Your task to perform on an android device: Clear the shopping cart on walmart. Add "amazon basics triple a" to the cart on walmart, then select checkout. Image 0: 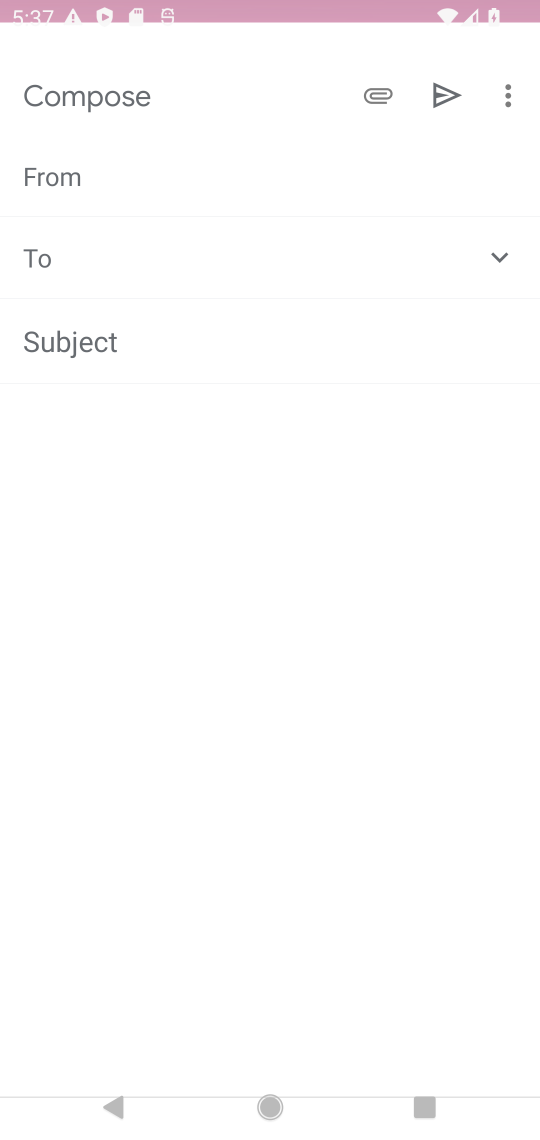
Step 0: press home button
Your task to perform on an android device: Clear the shopping cart on walmart. Add "amazon basics triple a" to the cart on walmart, then select checkout. Image 1: 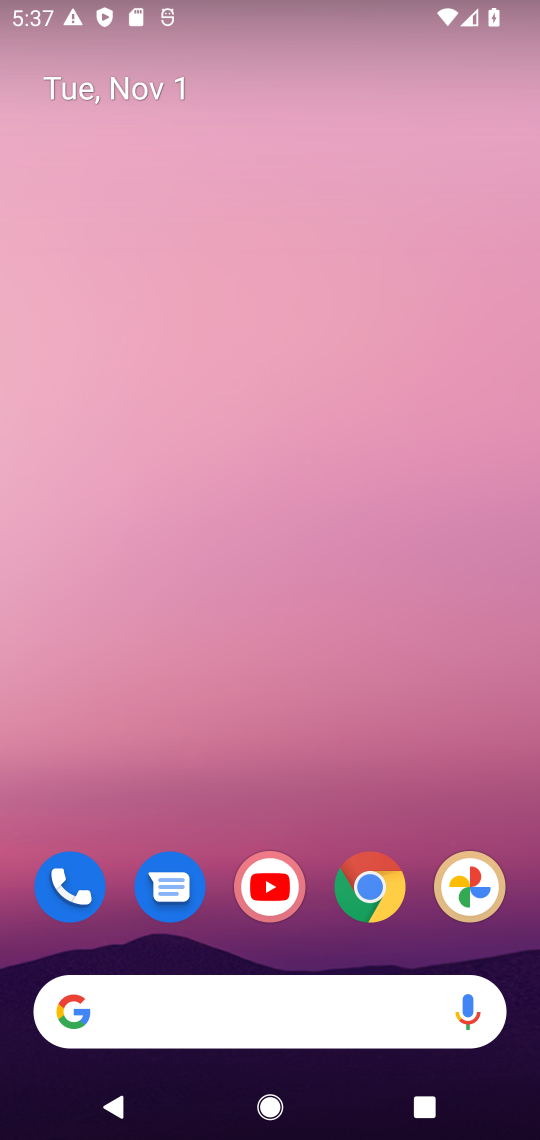
Step 1: drag from (313, 831) to (337, 63)
Your task to perform on an android device: Clear the shopping cart on walmart. Add "amazon basics triple a" to the cart on walmart, then select checkout. Image 2: 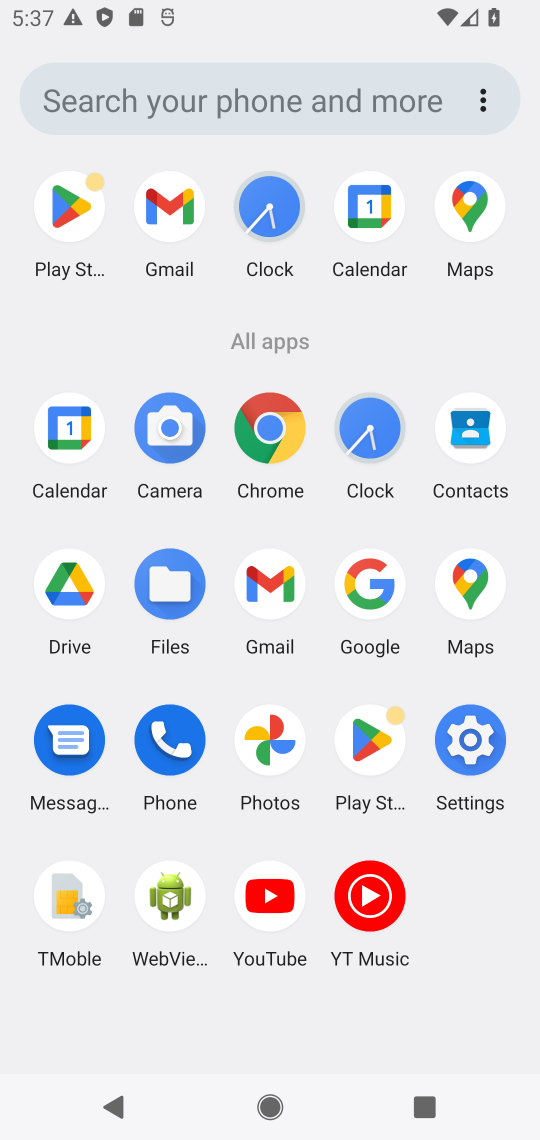
Step 2: click (266, 416)
Your task to perform on an android device: Clear the shopping cart on walmart. Add "amazon basics triple a" to the cart on walmart, then select checkout. Image 3: 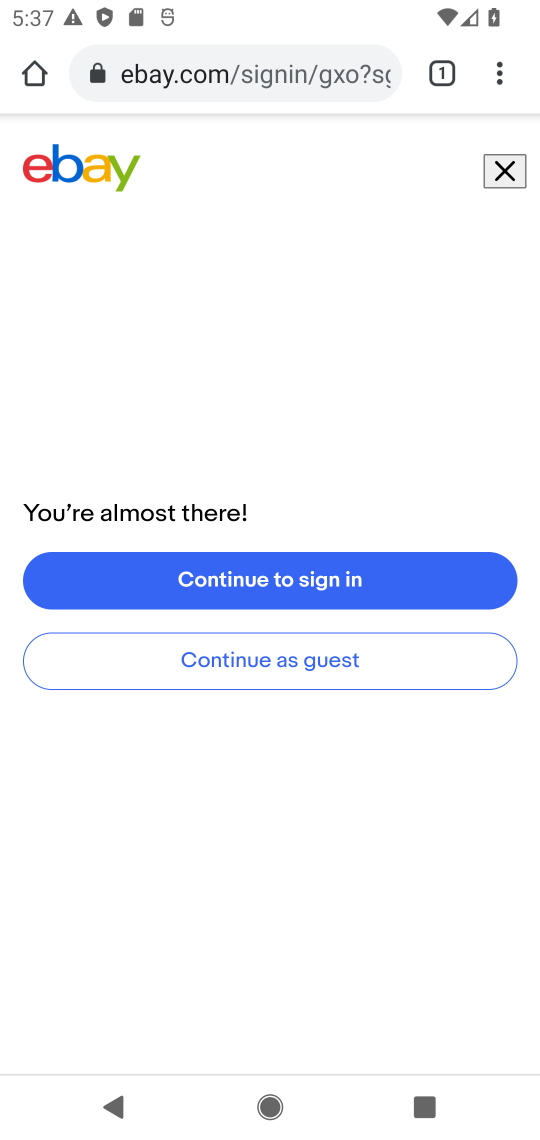
Step 3: click (263, 61)
Your task to perform on an android device: Clear the shopping cart on walmart. Add "amazon basics triple a" to the cart on walmart, then select checkout. Image 4: 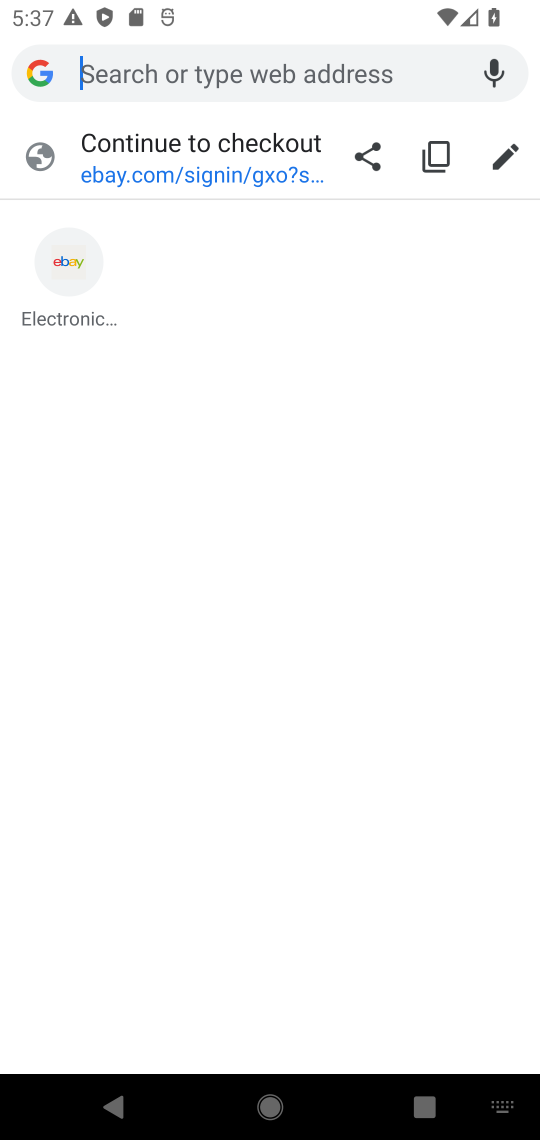
Step 4: type "walmart"
Your task to perform on an android device: Clear the shopping cart on walmart. Add "amazon basics triple a" to the cart on walmart, then select checkout. Image 5: 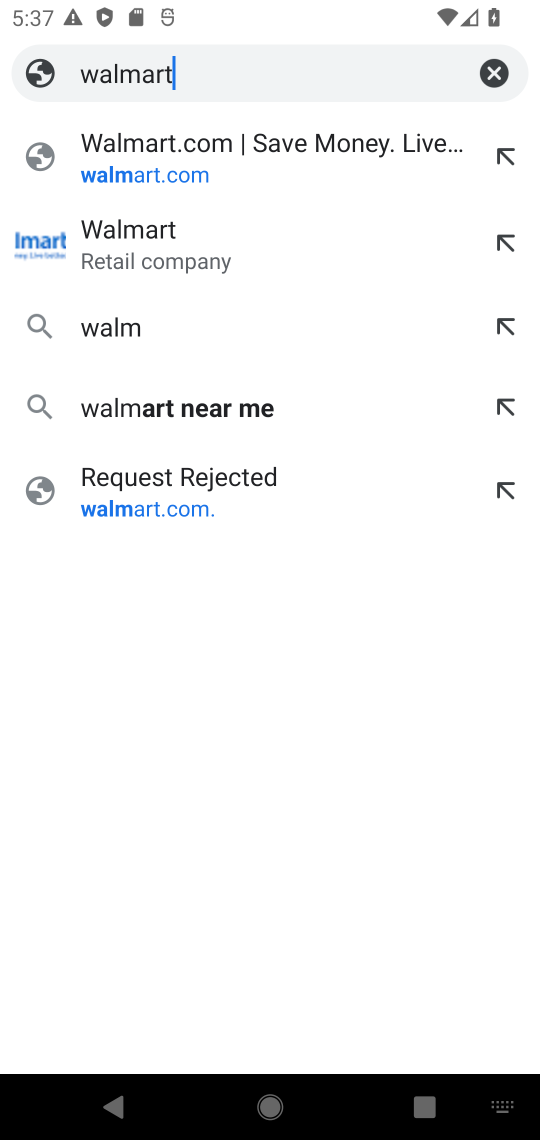
Step 5: type ""
Your task to perform on an android device: Clear the shopping cart on walmart. Add "amazon basics triple a" to the cart on walmart, then select checkout. Image 6: 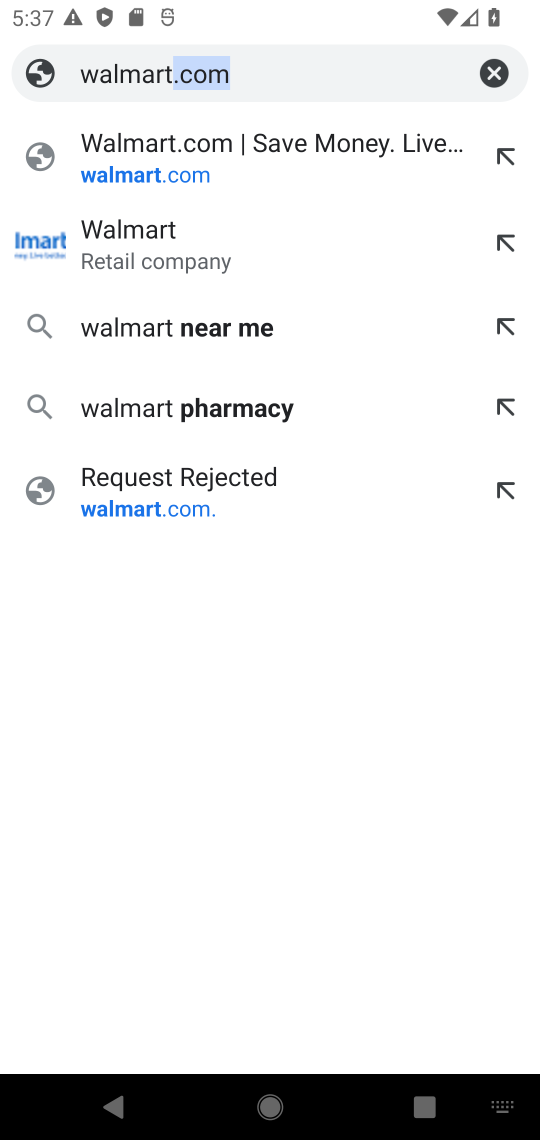
Step 6: click (228, 161)
Your task to perform on an android device: Clear the shopping cart on walmart. Add "amazon basics triple a" to the cart on walmart, then select checkout. Image 7: 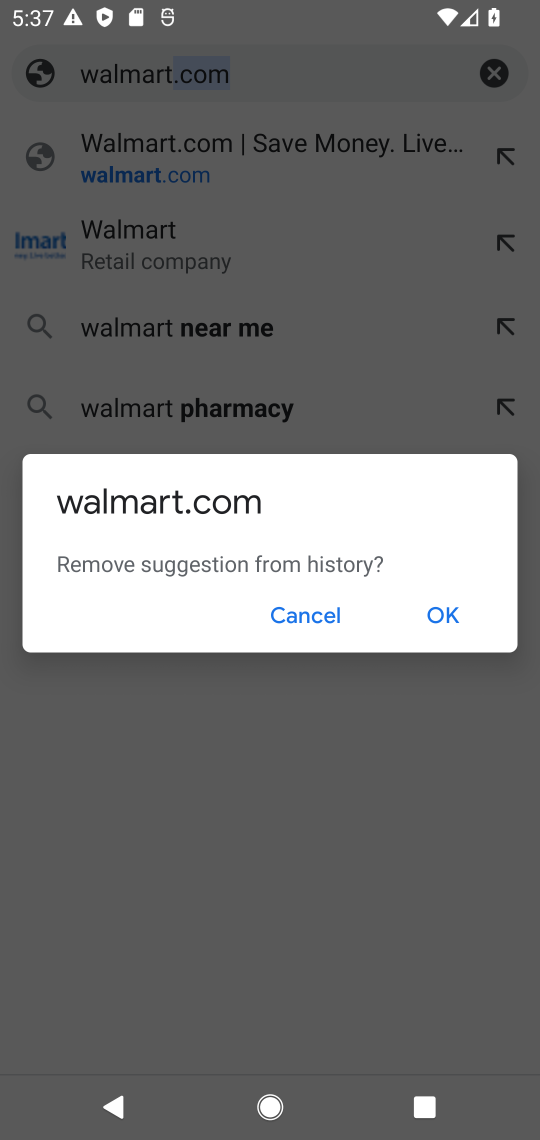
Step 7: click (305, 611)
Your task to perform on an android device: Clear the shopping cart on walmart. Add "amazon basics triple a" to the cart on walmart, then select checkout. Image 8: 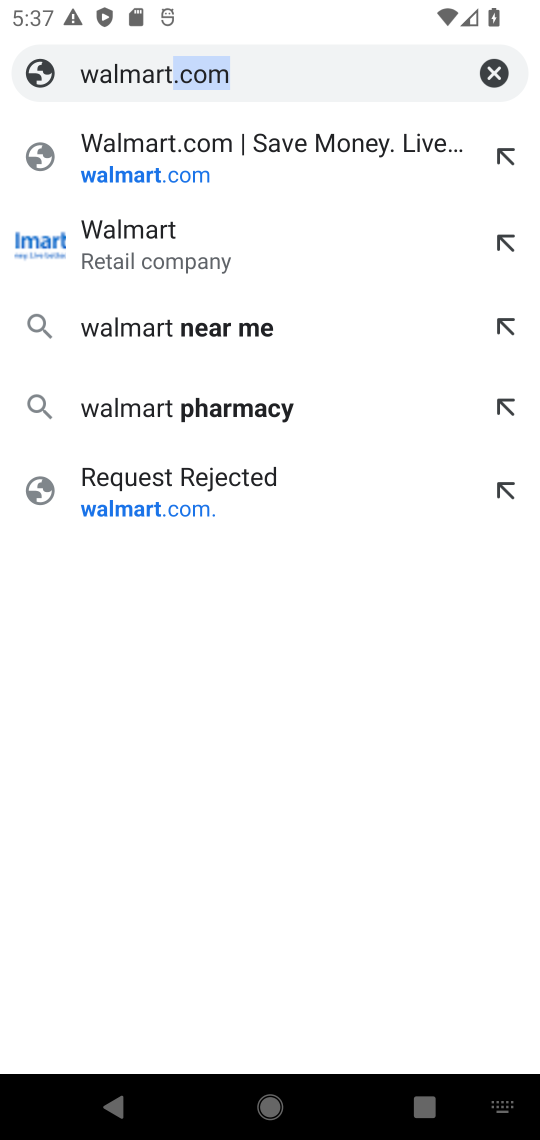
Step 8: click (137, 155)
Your task to perform on an android device: Clear the shopping cart on walmart. Add "amazon basics triple a" to the cart on walmart, then select checkout. Image 9: 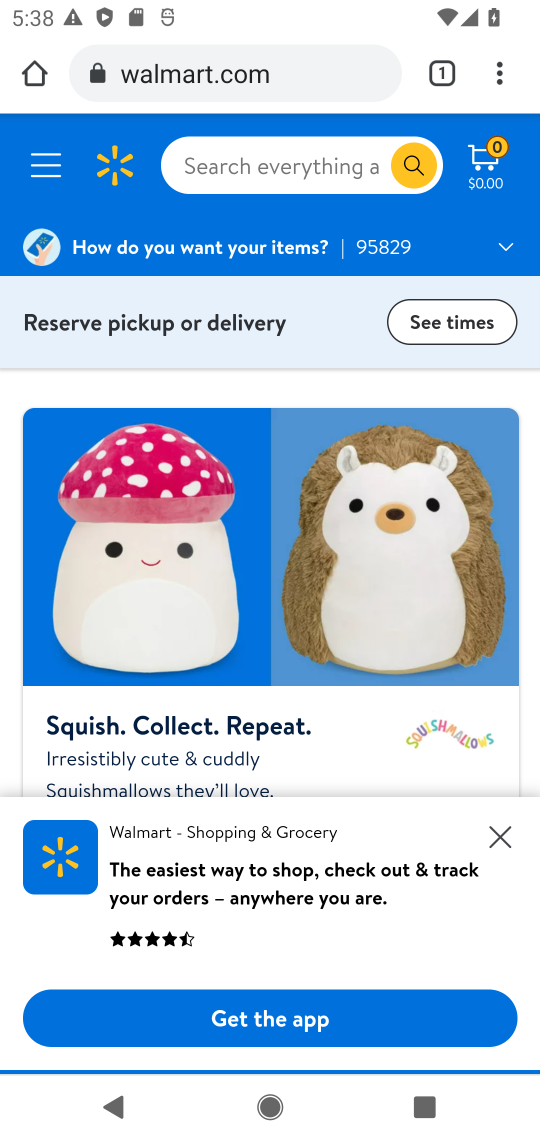
Step 9: click (237, 154)
Your task to perform on an android device: Clear the shopping cart on walmart. Add "amazon basics triple a" to the cart on walmart, then select checkout. Image 10: 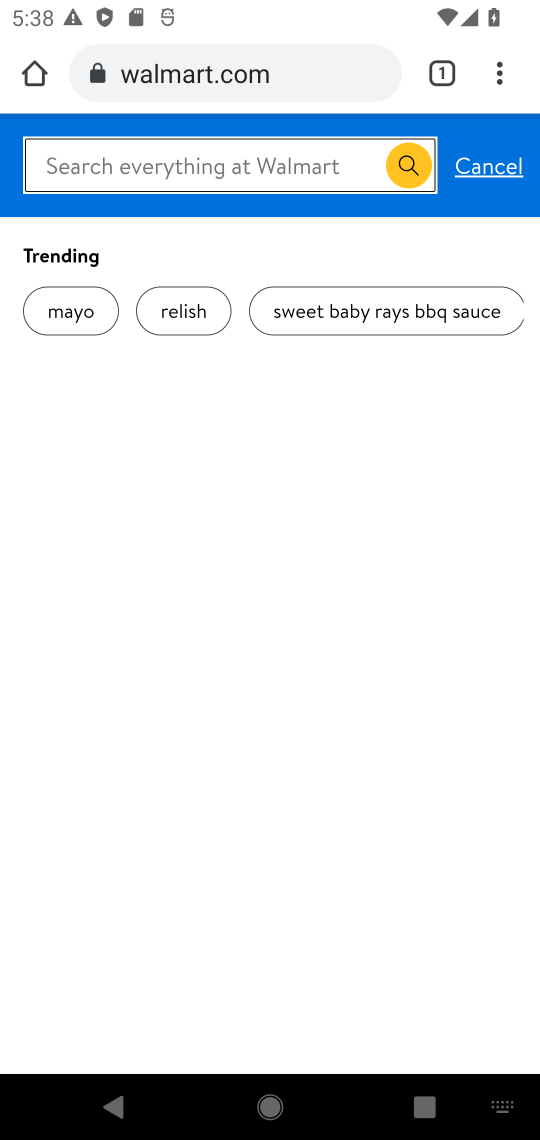
Step 10: click (169, 161)
Your task to perform on an android device: Clear the shopping cart on walmart. Add "amazon basics triple a" to the cart on walmart, then select checkout. Image 11: 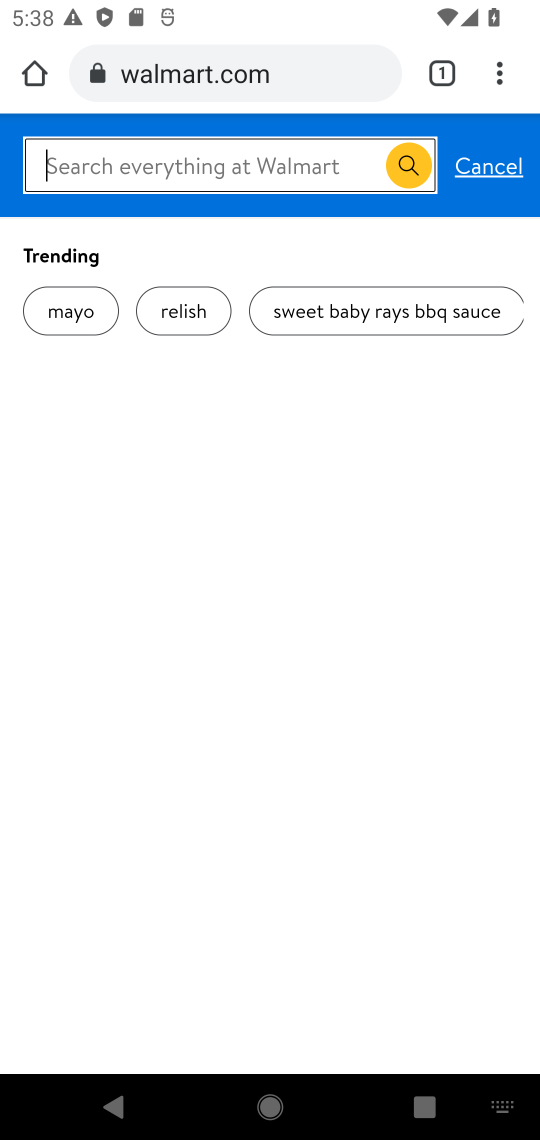
Step 11: type "amazon basics triple a"
Your task to perform on an android device: Clear the shopping cart on walmart. Add "amazon basics triple a" to the cart on walmart, then select checkout. Image 12: 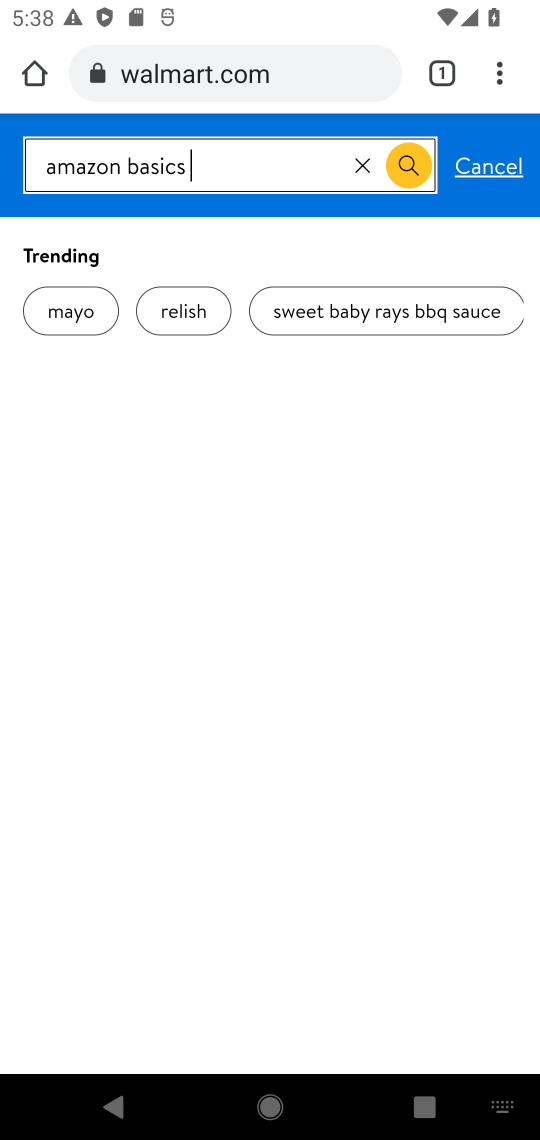
Step 12: type ""
Your task to perform on an android device: Clear the shopping cart on walmart. Add "amazon basics triple a" to the cart on walmart, then select checkout. Image 13: 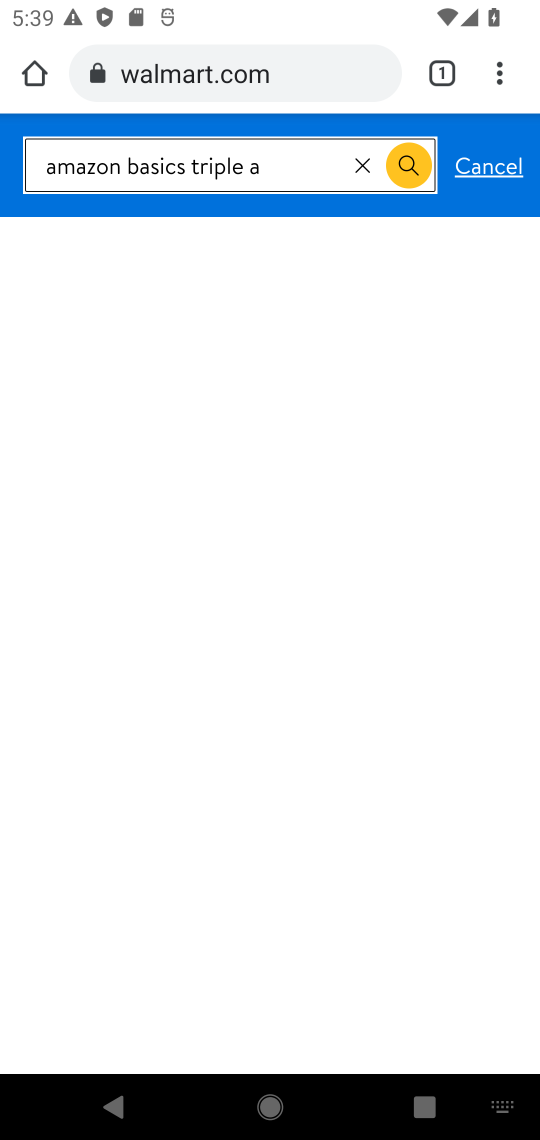
Step 13: click (404, 164)
Your task to perform on an android device: Clear the shopping cart on walmart. Add "amazon basics triple a" to the cart on walmart, then select checkout. Image 14: 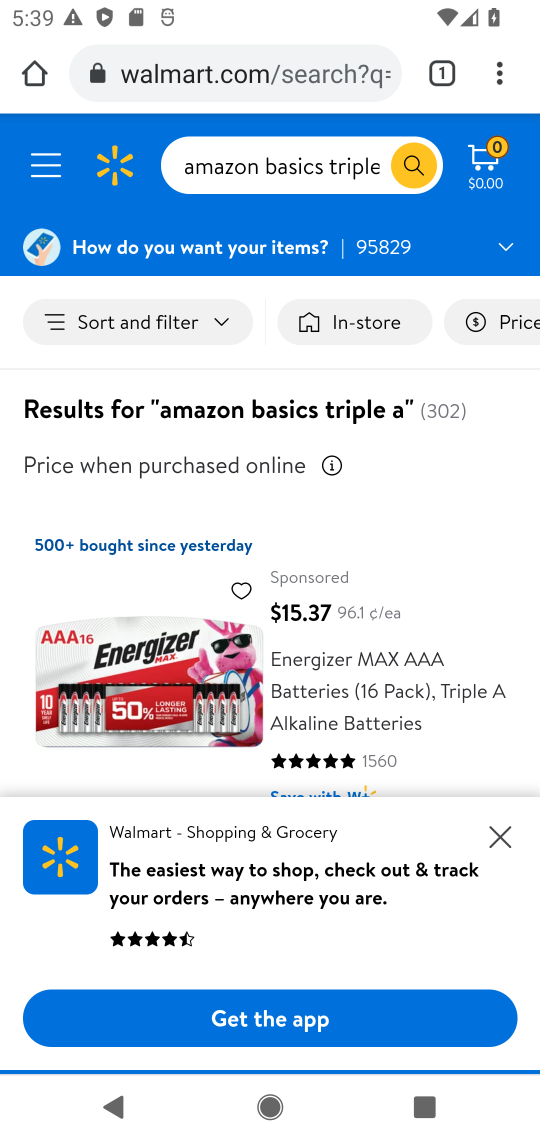
Step 14: click (508, 833)
Your task to perform on an android device: Clear the shopping cart on walmart. Add "amazon basics triple a" to the cart on walmart, then select checkout. Image 15: 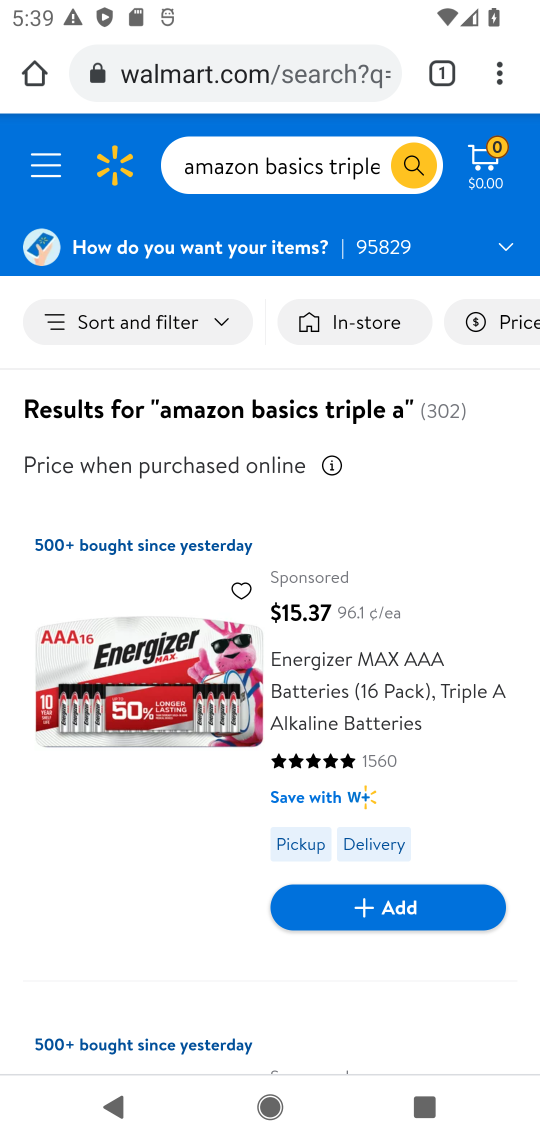
Step 15: click (498, 838)
Your task to perform on an android device: Clear the shopping cart on walmart. Add "amazon basics triple a" to the cart on walmart, then select checkout. Image 16: 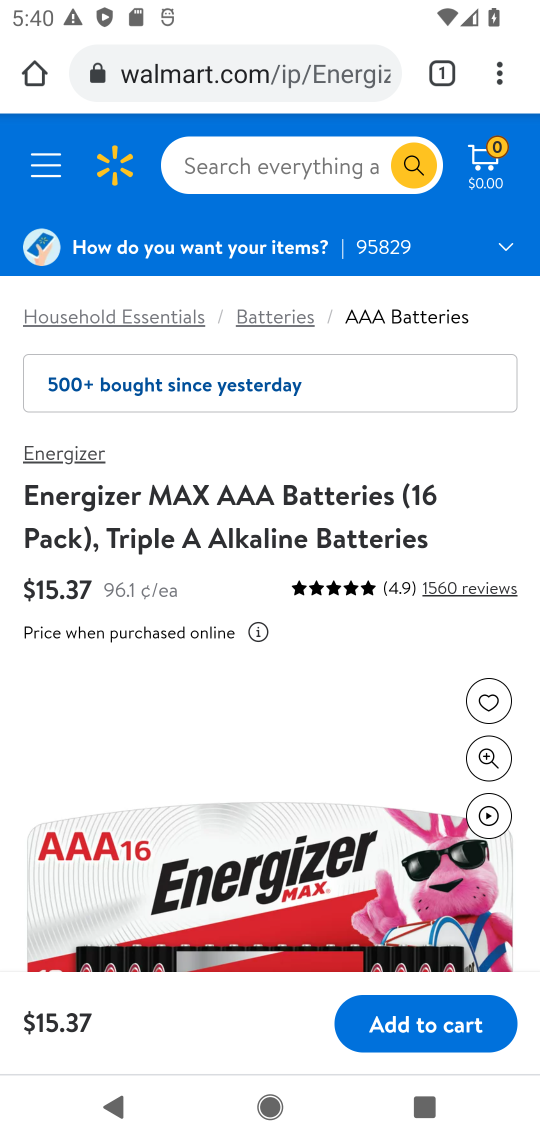
Step 16: drag from (278, 755) to (369, 165)
Your task to perform on an android device: Clear the shopping cart on walmart. Add "amazon basics triple a" to the cart on walmart, then select checkout. Image 17: 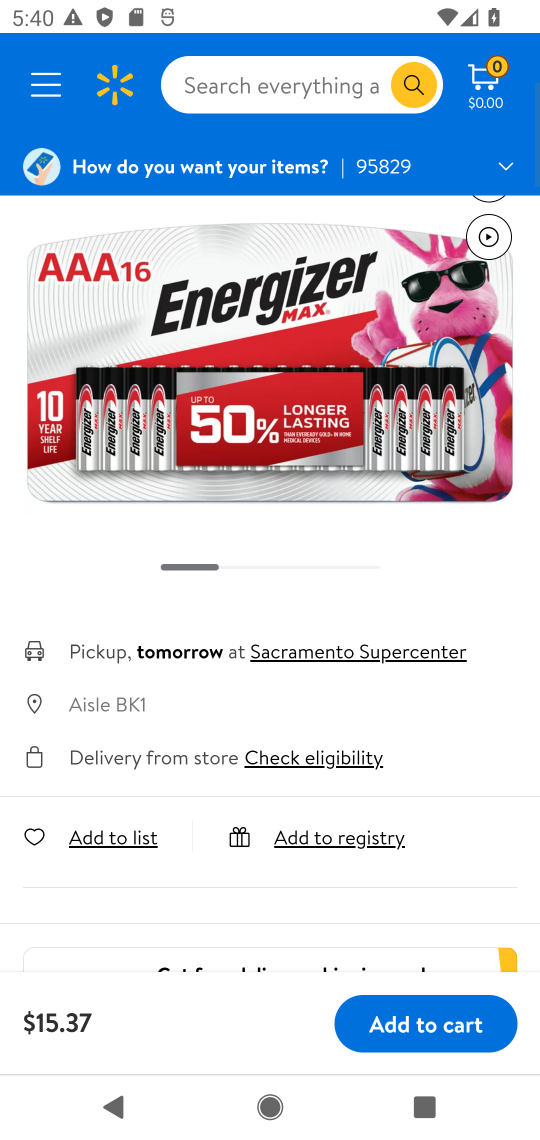
Step 17: drag from (306, 914) to (398, 328)
Your task to perform on an android device: Clear the shopping cart on walmart. Add "amazon basics triple a" to the cart on walmart, then select checkout. Image 18: 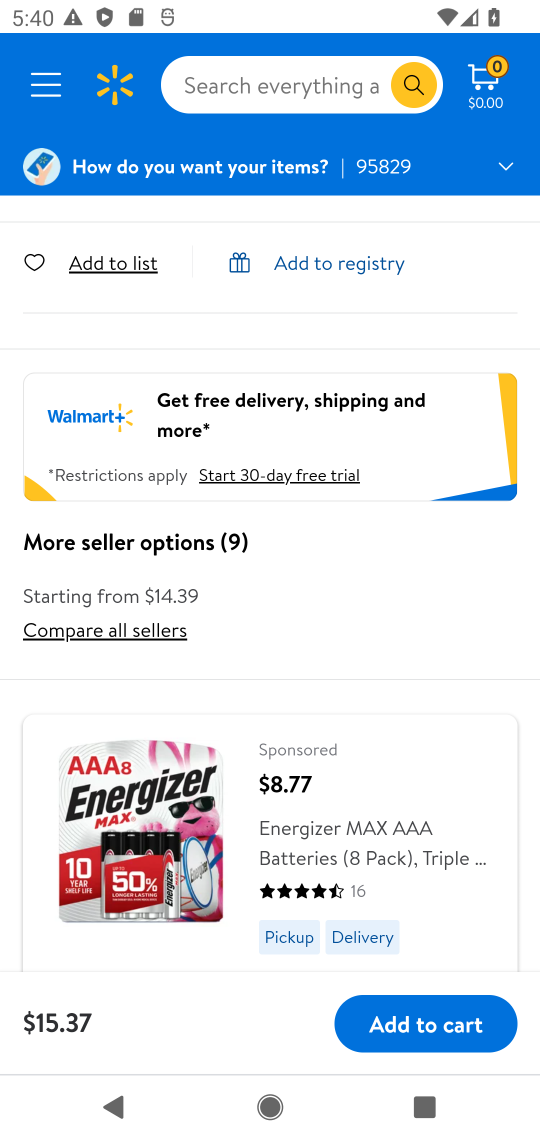
Step 18: click (430, 1023)
Your task to perform on an android device: Clear the shopping cart on walmart. Add "amazon basics triple a" to the cart on walmart, then select checkout. Image 19: 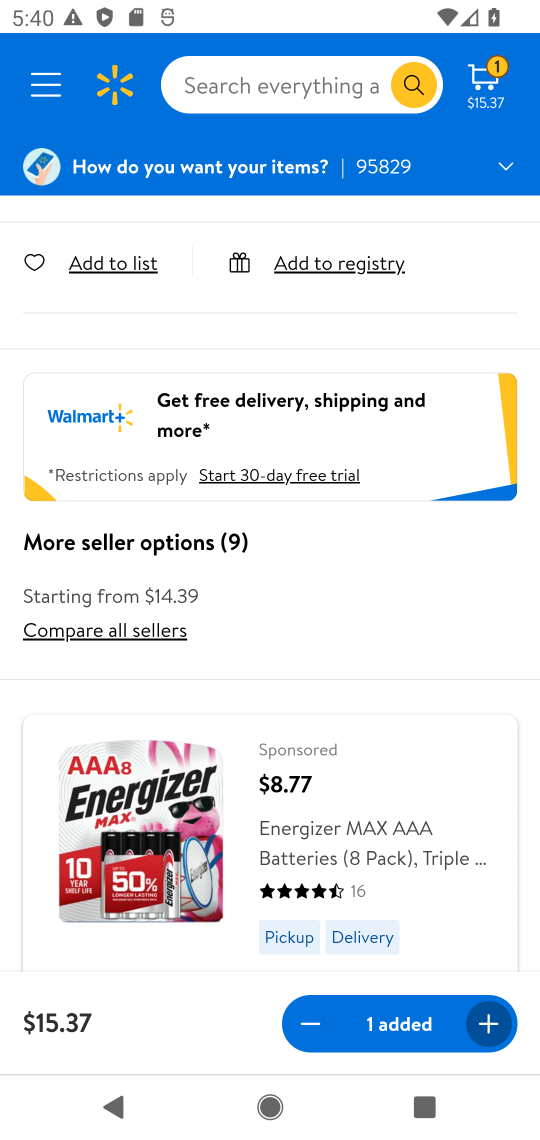
Step 19: click (483, 71)
Your task to perform on an android device: Clear the shopping cart on walmart. Add "amazon basics triple a" to the cart on walmart, then select checkout. Image 20: 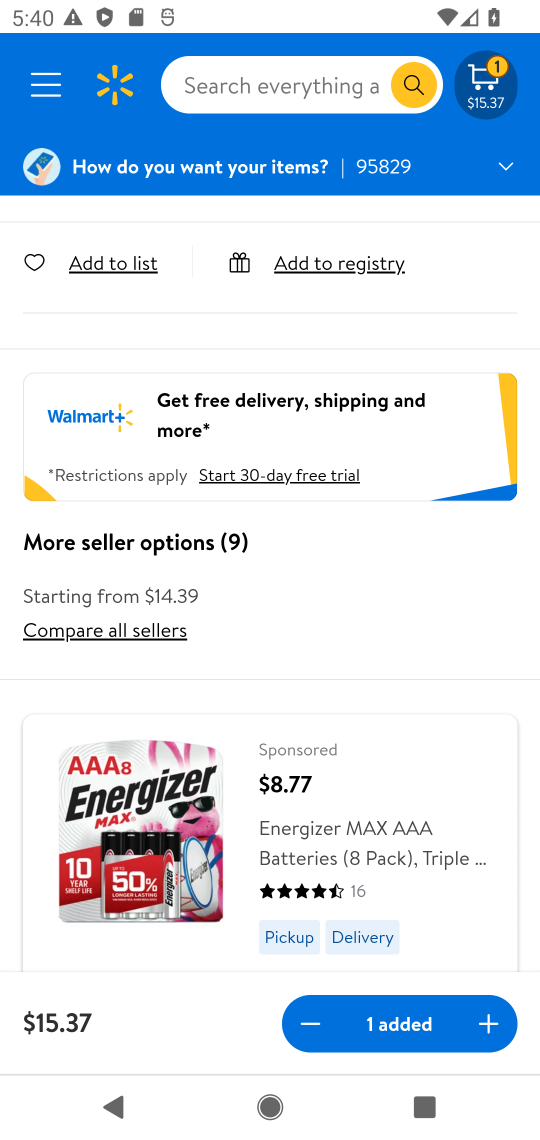
Step 20: click (489, 76)
Your task to perform on an android device: Clear the shopping cart on walmart. Add "amazon basics triple a" to the cart on walmart, then select checkout. Image 21: 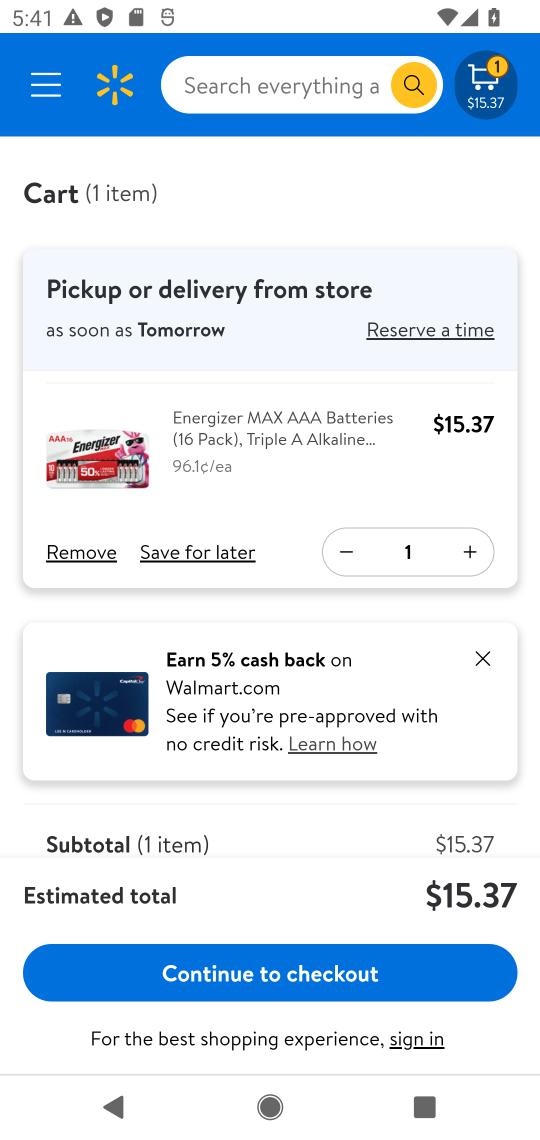
Step 21: click (273, 968)
Your task to perform on an android device: Clear the shopping cart on walmart. Add "amazon basics triple a" to the cart on walmart, then select checkout. Image 22: 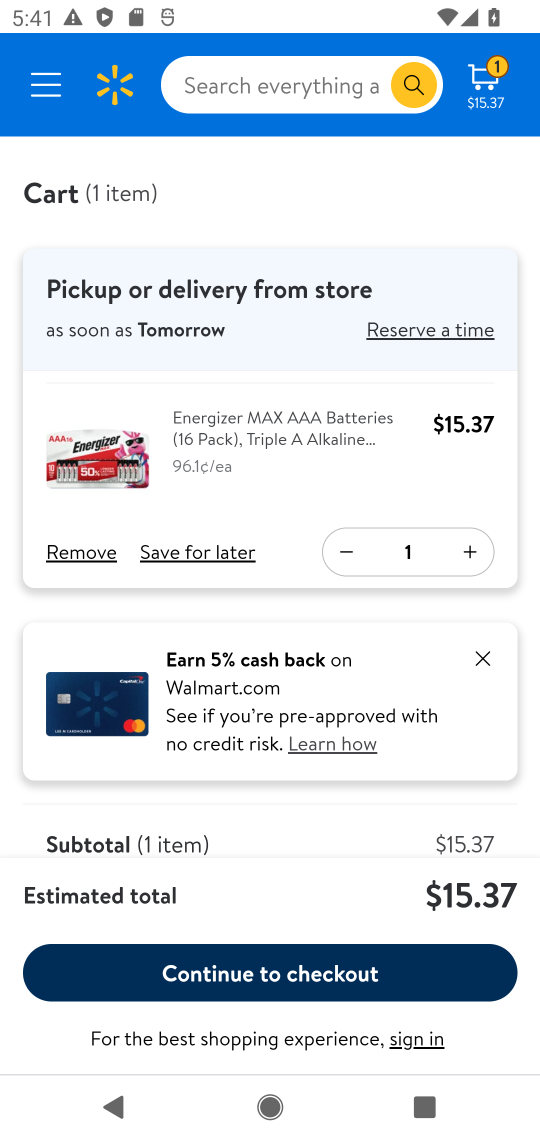
Step 22: task complete